Your task to perform on an android device: Open the Play Movies app and select the watchlist tab. Image 0: 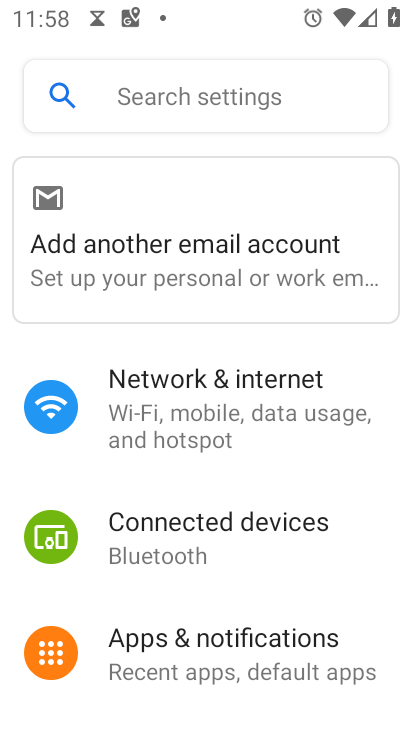
Step 0: press home button
Your task to perform on an android device: Open the Play Movies app and select the watchlist tab. Image 1: 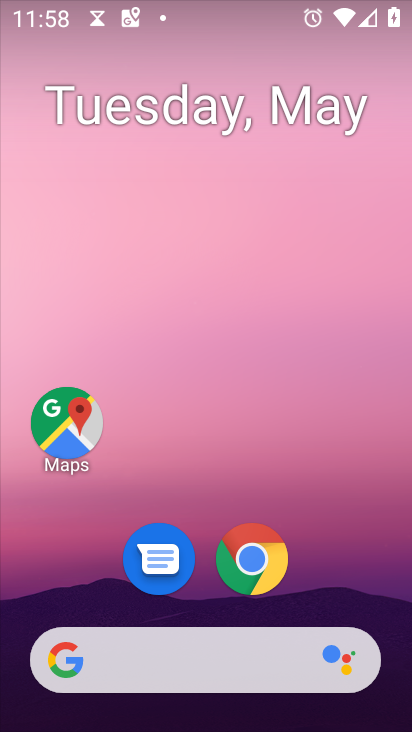
Step 1: drag from (363, 557) to (319, 30)
Your task to perform on an android device: Open the Play Movies app and select the watchlist tab. Image 2: 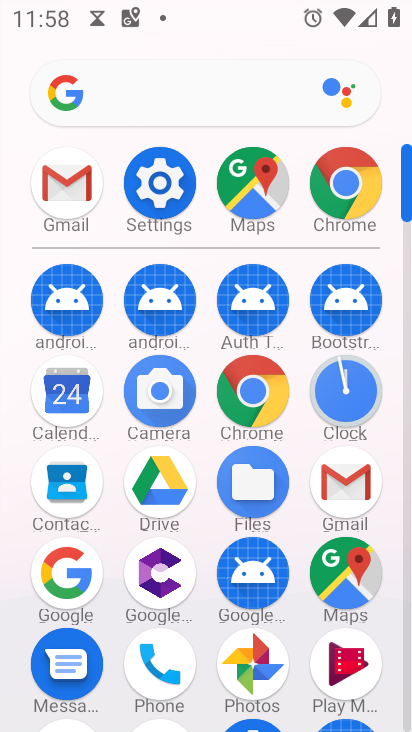
Step 2: drag from (388, 698) to (367, 191)
Your task to perform on an android device: Open the Play Movies app and select the watchlist tab. Image 3: 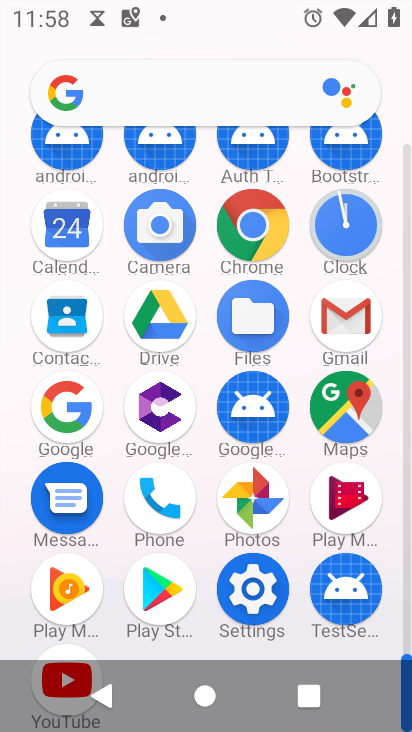
Step 3: click (349, 490)
Your task to perform on an android device: Open the Play Movies app and select the watchlist tab. Image 4: 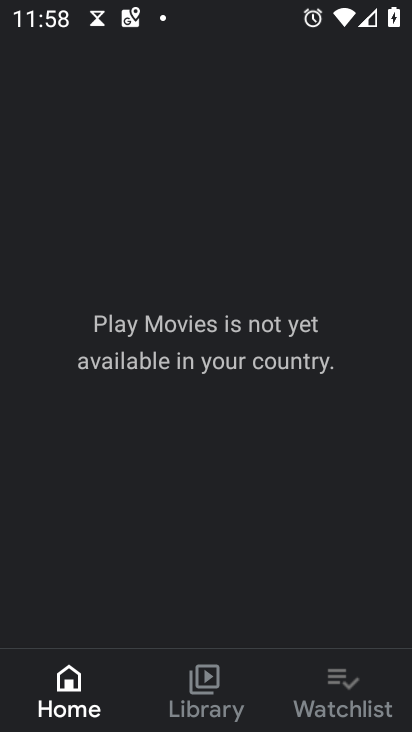
Step 4: click (312, 681)
Your task to perform on an android device: Open the Play Movies app and select the watchlist tab. Image 5: 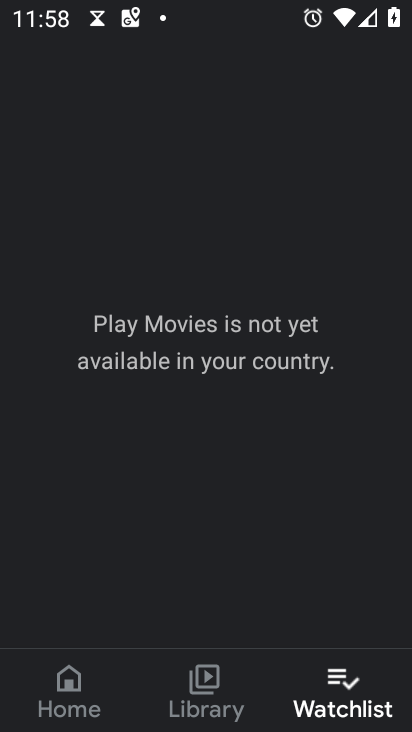
Step 5: task complete